Your task to perform on an android device: Go to settings Image 0: 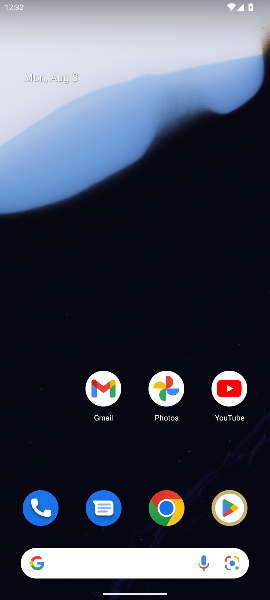
Step 0: press home button
Your task to perform on an android device: Go to settings Image 1: 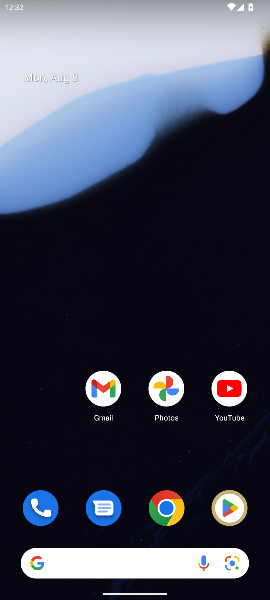
Step 1: drag from (192, 455) to (158, 116)
Your task to perform on an android device: Go to settings Image 2: 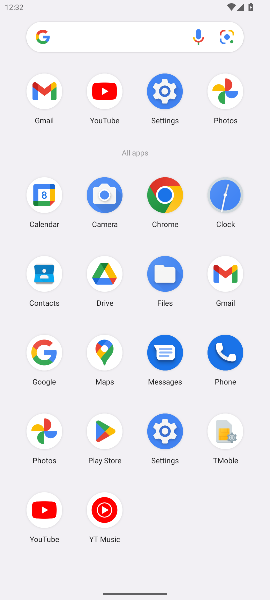
Step 2: click (170, 428)
Your task to perform on an android device: Go to settings Image 3: 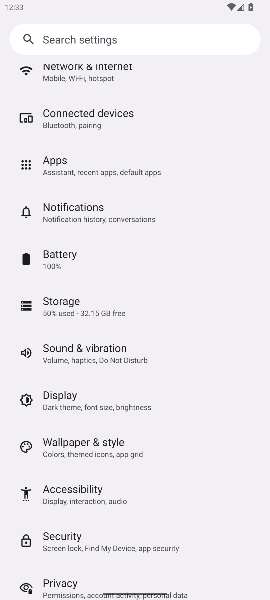
Step 3: task complete